Your task to perform on an android device: Open the calendar app, open the side menu, and click the "Day" option Image 0: 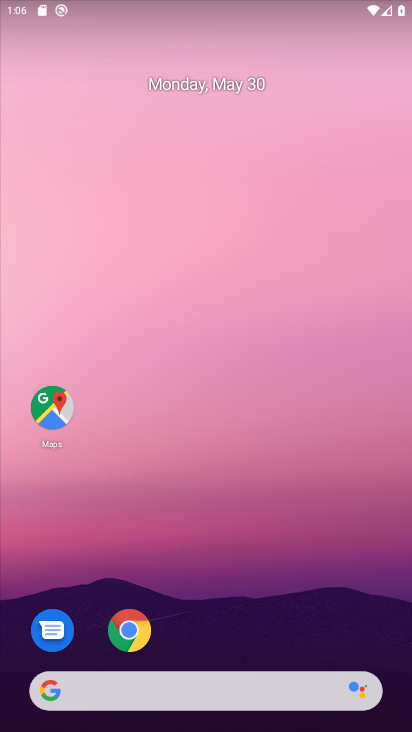
Step 0: press home button
Your task to perform on an android device: Open the calendar app, open the side menu, and click the "Day" option Image 1: 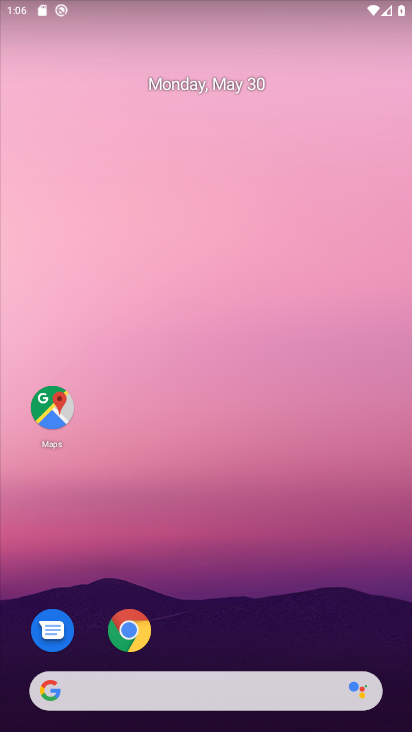
Step 1: drag from (186, 699) to (237, 146)
Your task to perform on an android device: Open the calendar app, open the side menu, and click the "Day" option Image 2: 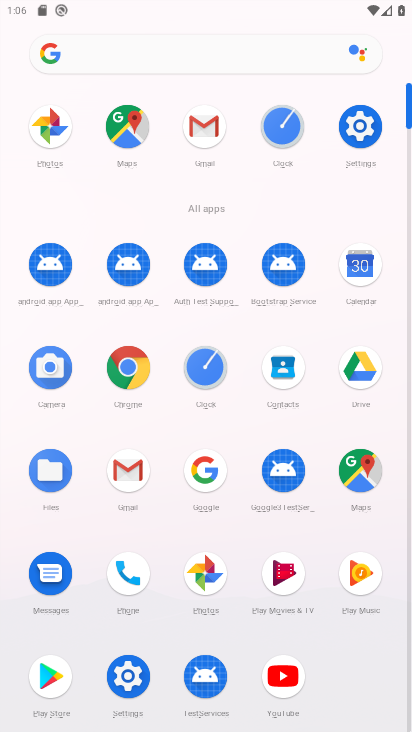
Step 2: click (356, 267)
Your task to perform on an android device: Open the calendar app, open the side menu, and click the "Day" option Image 3: 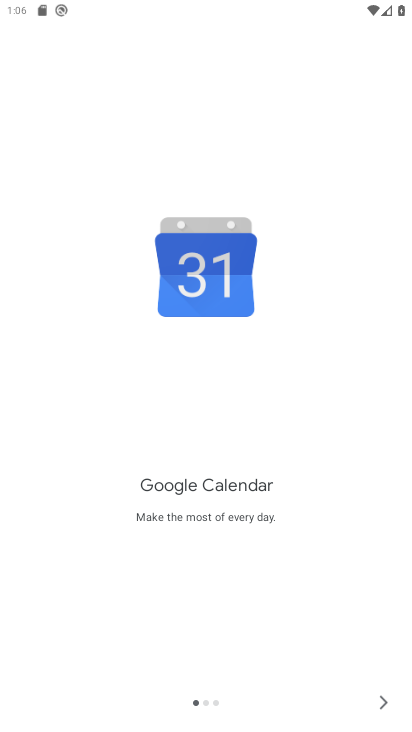
Step 3: click (381, 703)
Your task to perform on an android device: Open the calendar app, open the side menu, and click the "Day" option Image 4: 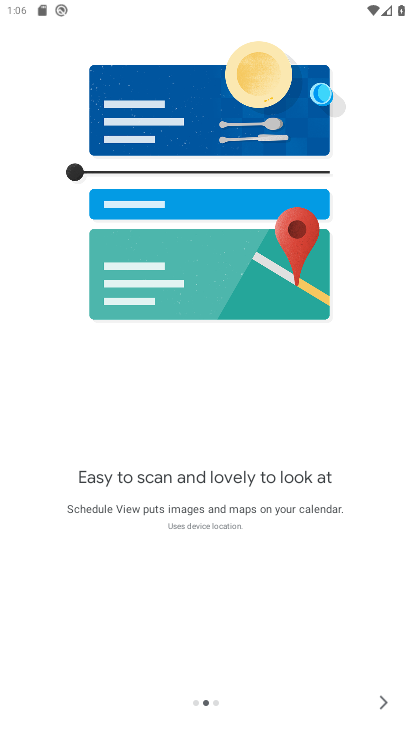
Step 4: click (381, 703)
Your task to perform on an android device: Open the calendar app, open the side menu, and click the "Day" option Image 5: 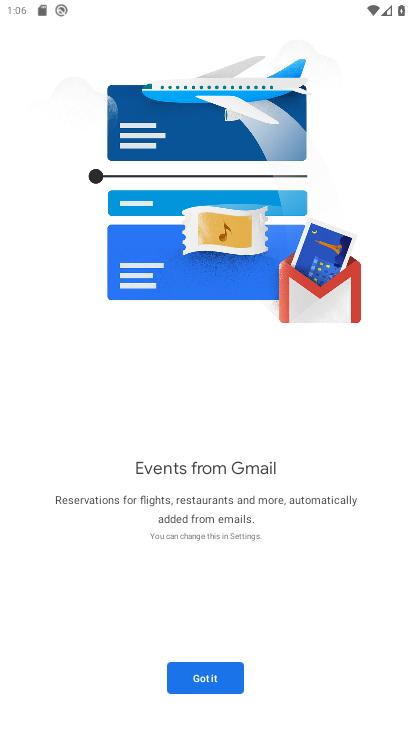
Step 5: click (211, 676)
Your task to perform on an android device: Open the calendar app, open the side menu, and click the "Day" option Image 6: 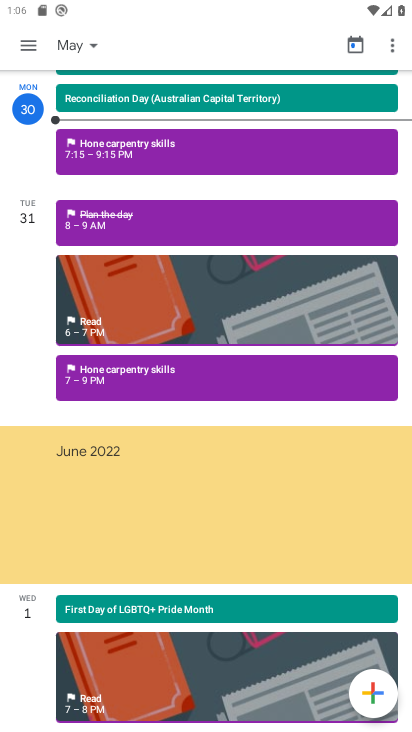
Step 6: click (22, 43)
Your task to perform on an android device: Open the calendar app, open the side menu, and click the "Day" option Image 7: 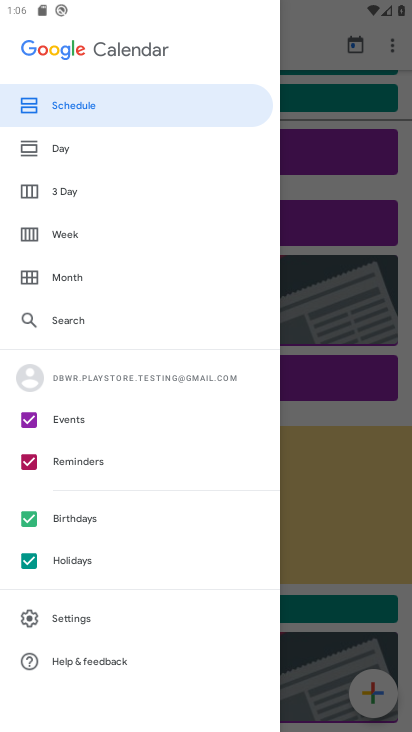
Step 7: click (60, 152)
Your task to perform on an android device: Open the calendar app, open the side menu, and click the "Day" option Image 8: 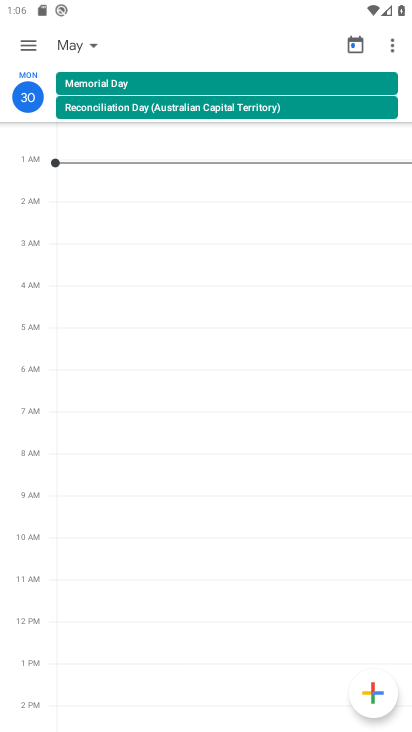
Step 8: task complete